Your task to perform on an android device: What's on my calendar today? Image 0: 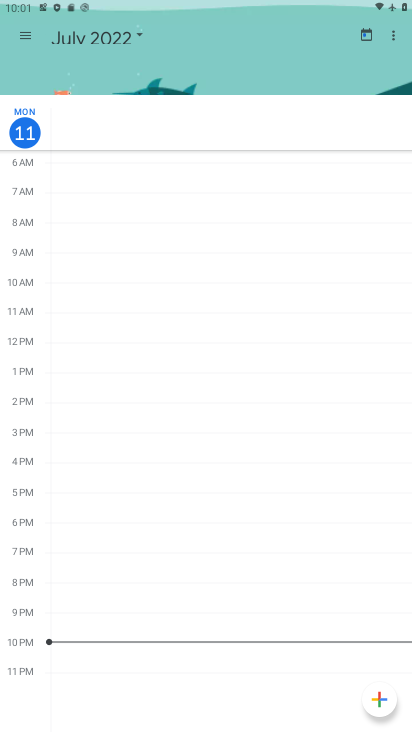
Step 0: press home button
Your task to perform on an android device: What's on my calendar today? Image 1: 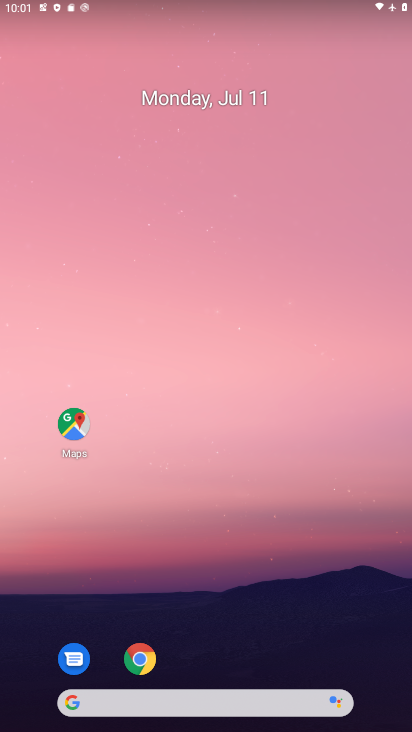
Step 1: drag from (213, 694) to (199, 167)
Your task to perform on an android device: What's on my calendar today? Image 2: 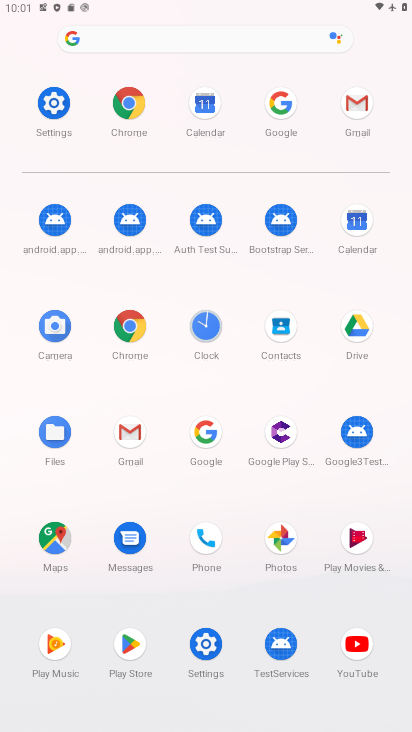
Step 2: click (356, 228)
Your task to perform on an android device: What's on my calendar today? Image 3: 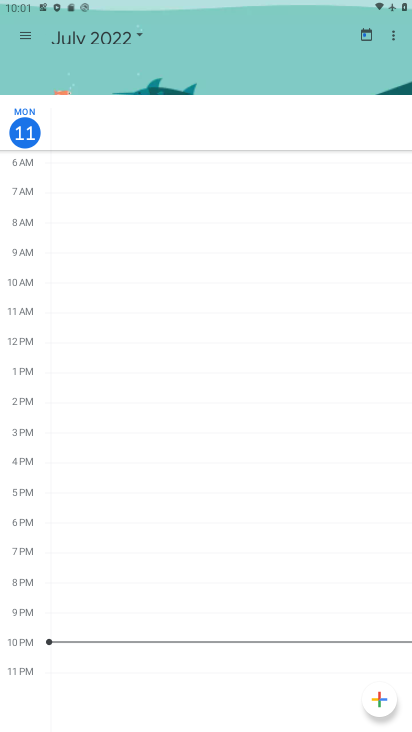
Step 3: click (28, 134)
Your task to perform on an android device: What's on my calendar today? Image 4: 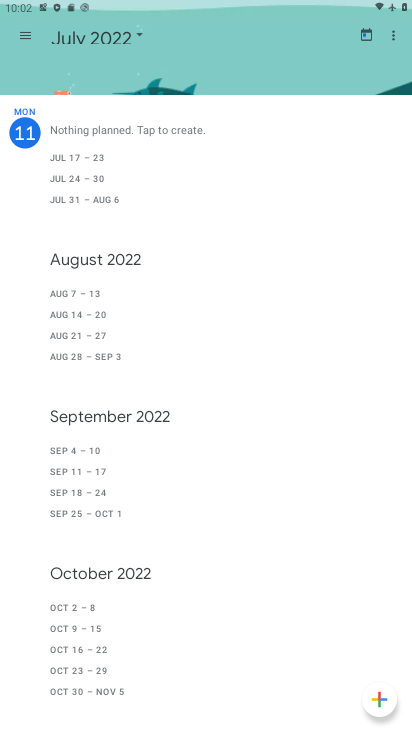
Step 4: task complete